Your task to perform on an android device: uninstall "PUBG MOBILE" Image 0: 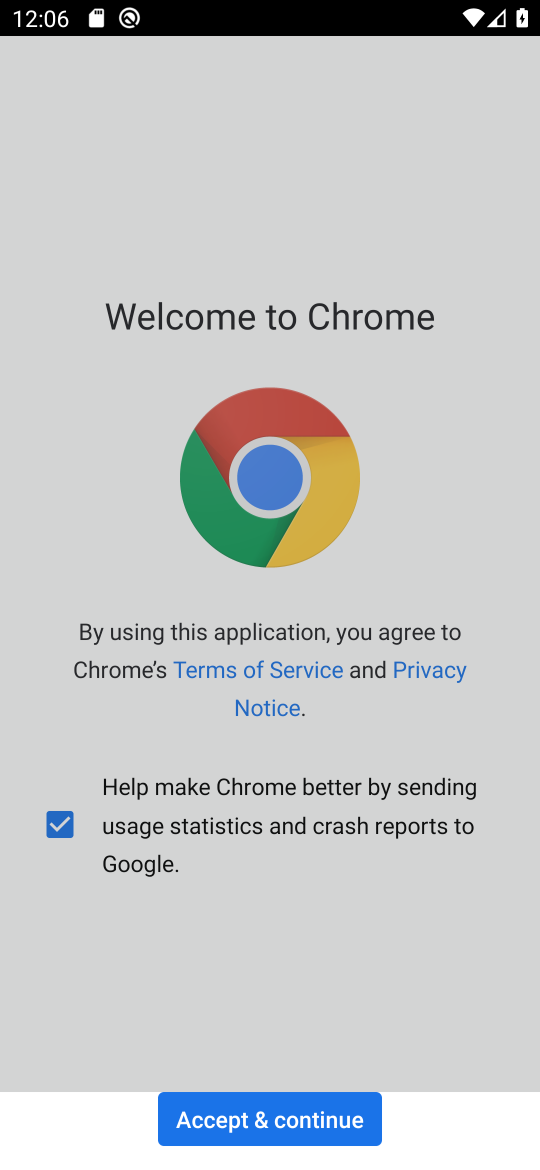
Step 0: press home button
Your task to perform on an android device: uninstall "PUBG MOBILE" Image 1: 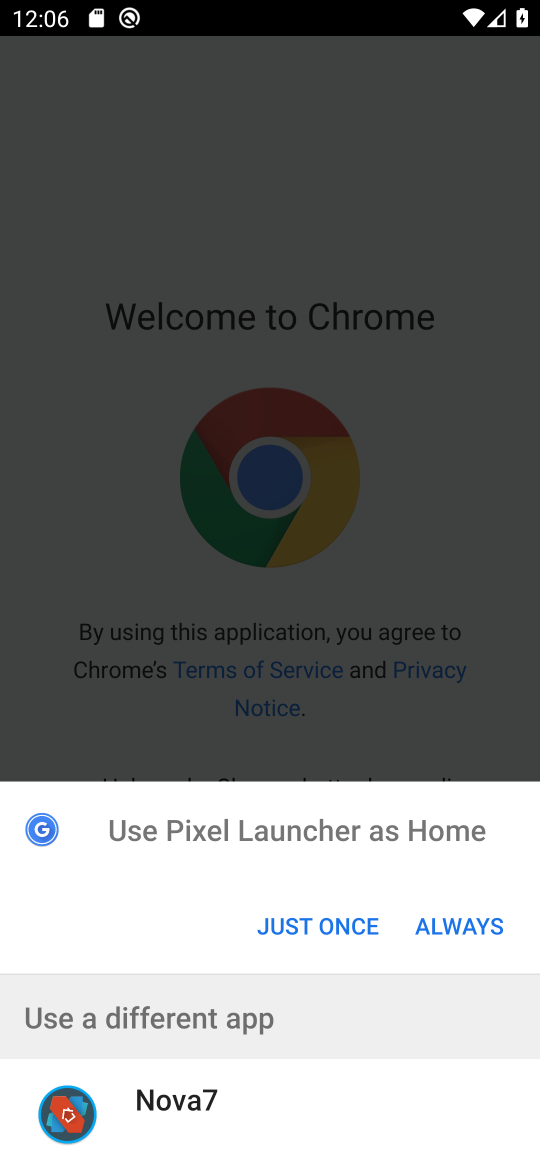
Step 1: click (297, 912)
Your task to perform on an android device: uninstall "PUBG MOBILE" Image 2: 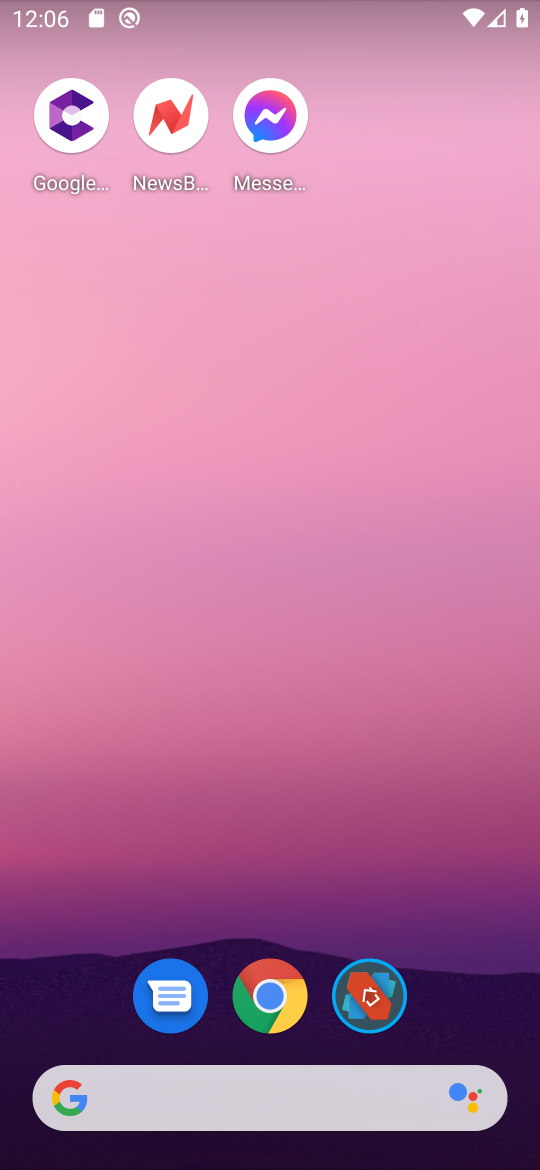
Step 2: drag from (316, 962) to (438, 87)
Your task to perform on an android device: uninstall "PUBG MOBILE" Image 3: 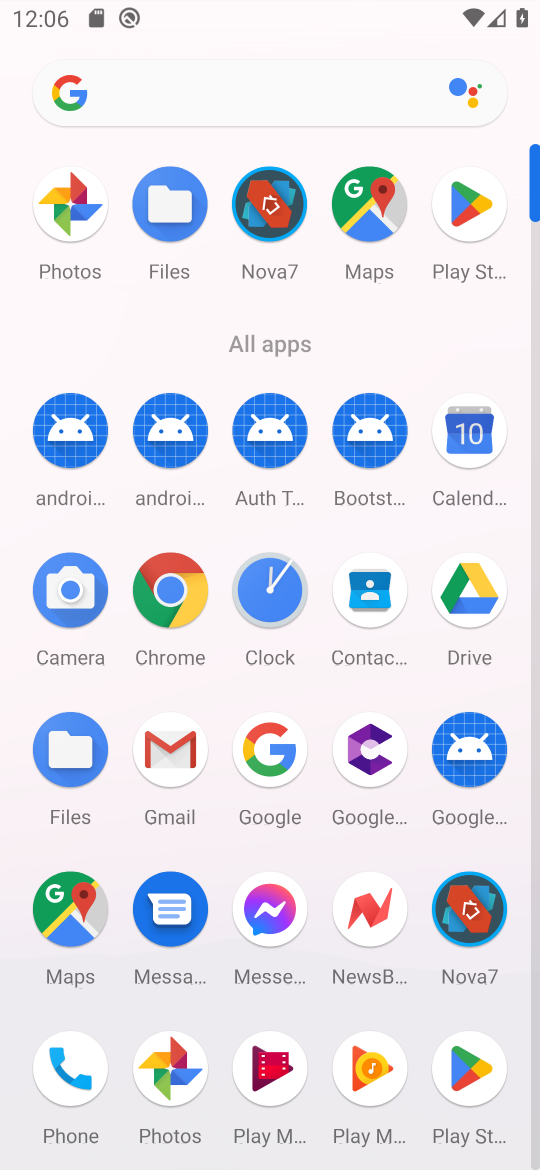
Step 3: click (454, 200)
Your task to perform on an android device: uninstall "PUBG MOBILE" Image 4: 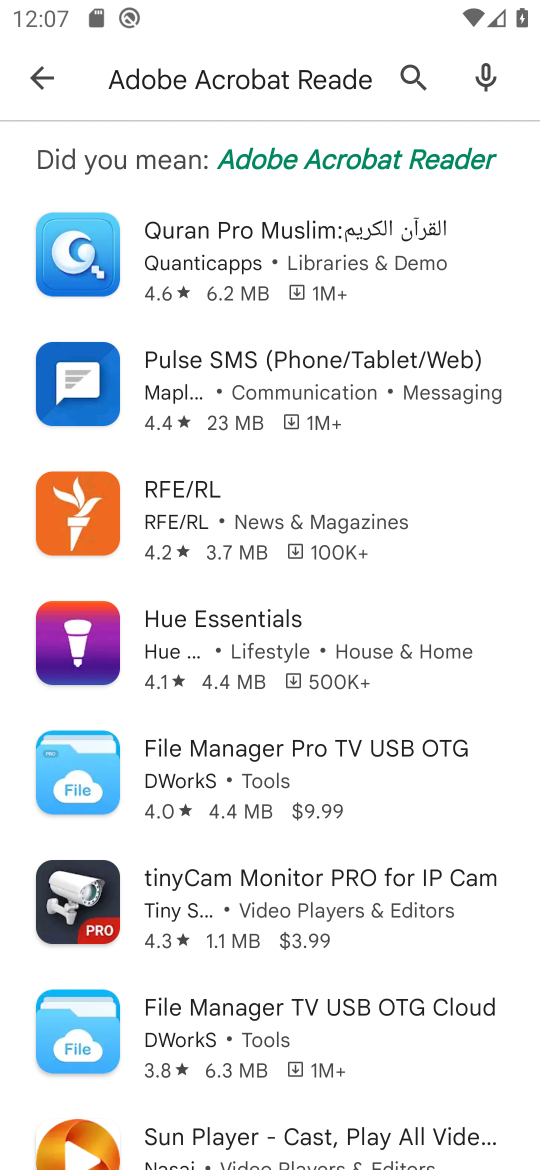
Step 4: click (37, 67)
Your task to perform on an android device: uninstall "PUBG MOBILE" Image 5: 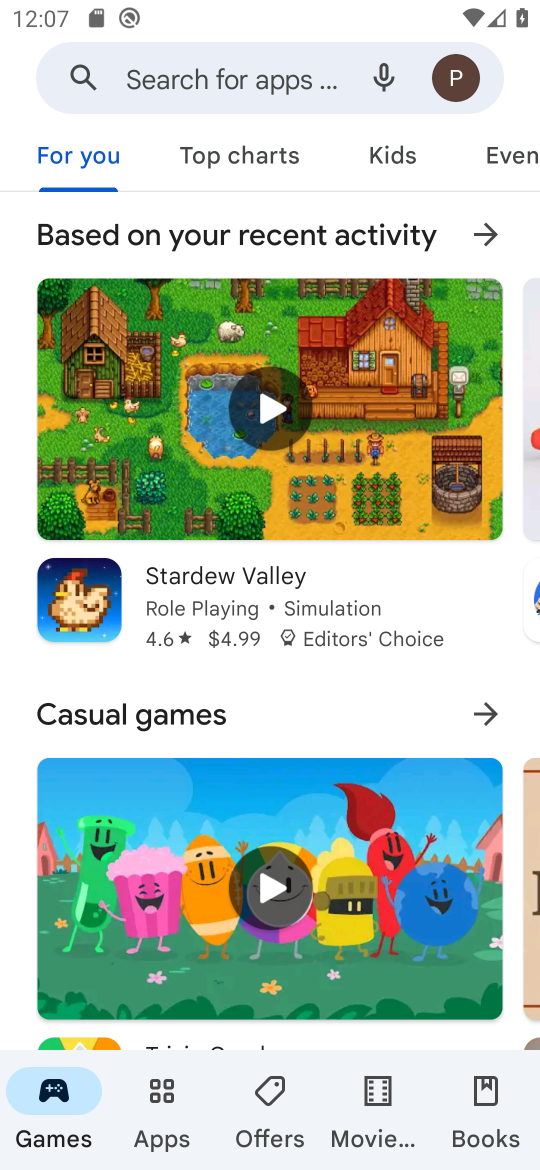
Step 5: click (223, 70)
Your task to perform on an android device: uninstall "PUBG MOBILE" Image 6: 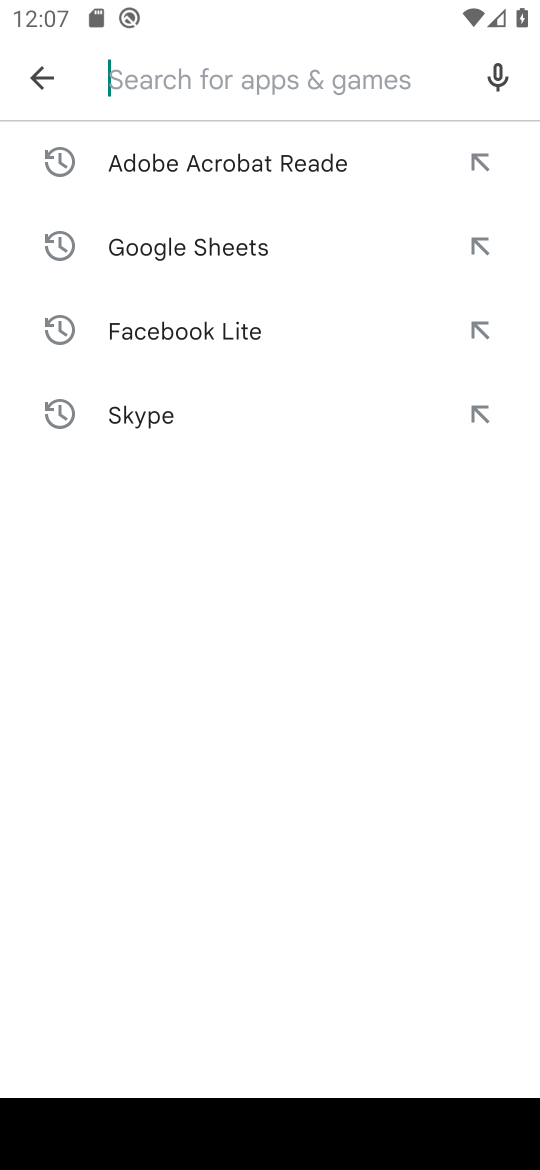
Step 6: type "PUBG MOBILE"
Your task to perform on an android device: uninstall "PUBG MOBILE" Image 7: 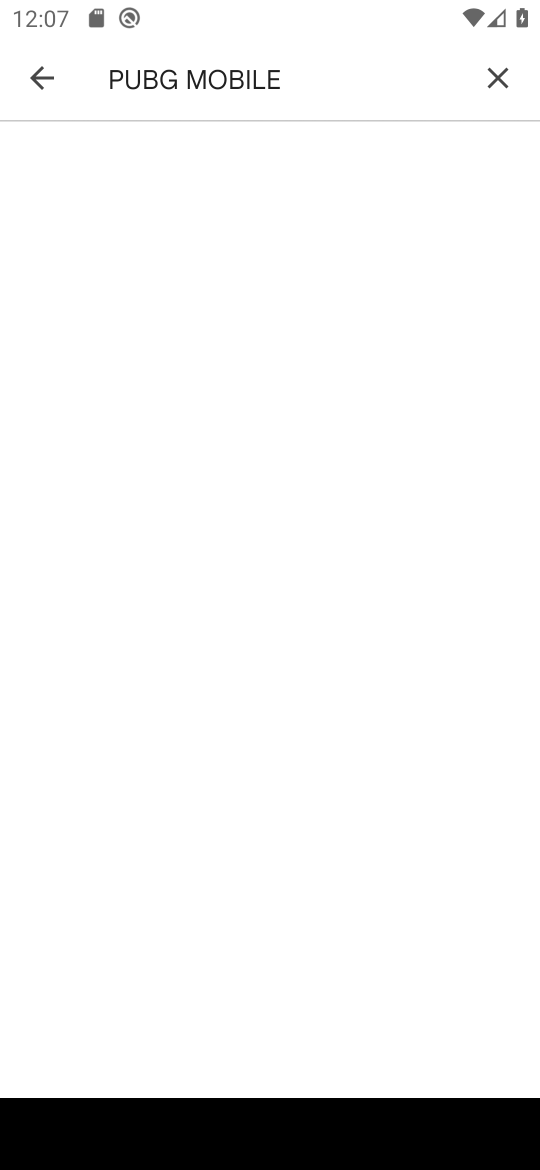
Step 7: press enter
Your task to perform on an android device: uninstall "PUBG MOBILE" Image 8: 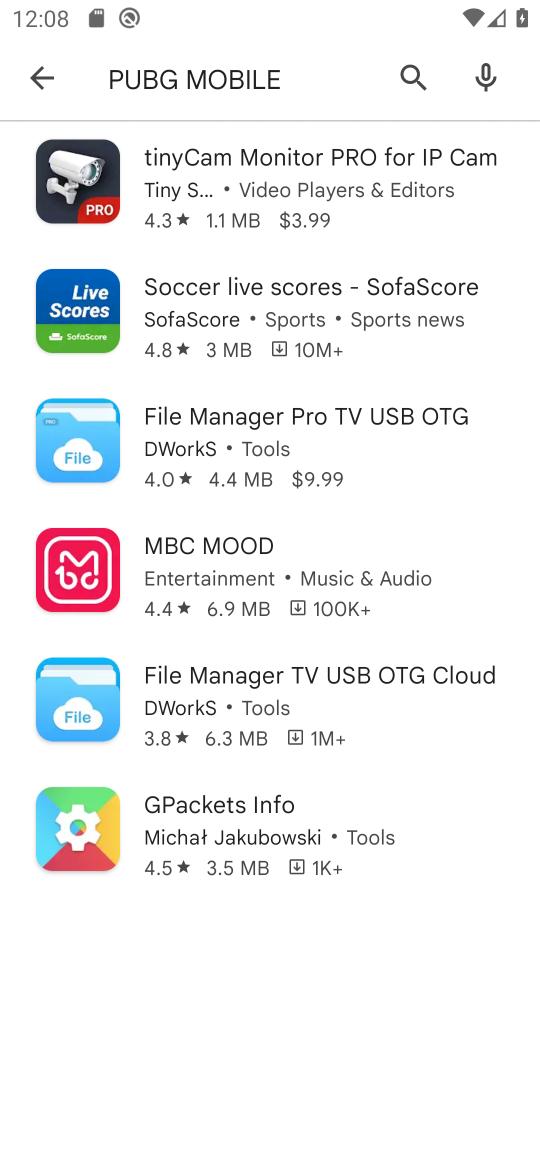
Step 8: task complete